Your task to perform on an android device: Go to wifi settings Image 0: 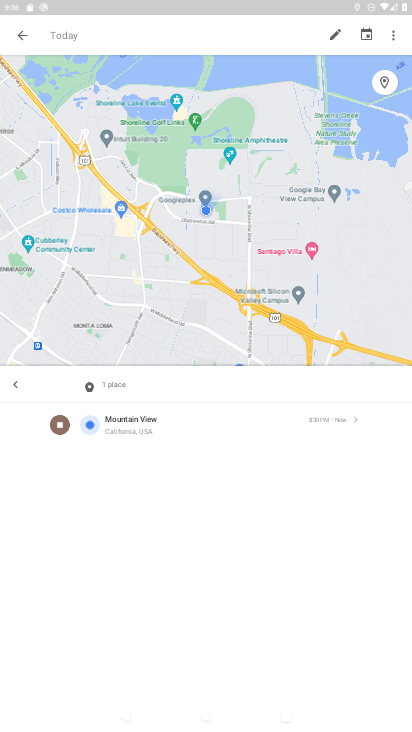
Step 0: press home button
Your task to perform on an android device: Go to wifi settings Image 1: 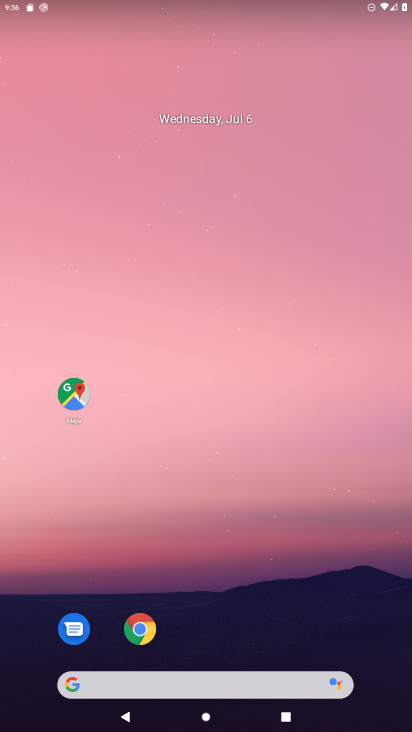
Step 1: drag from (281, 662) to (290, 46)
Your task to perform on an android device: Go to wifi settings Image 2: 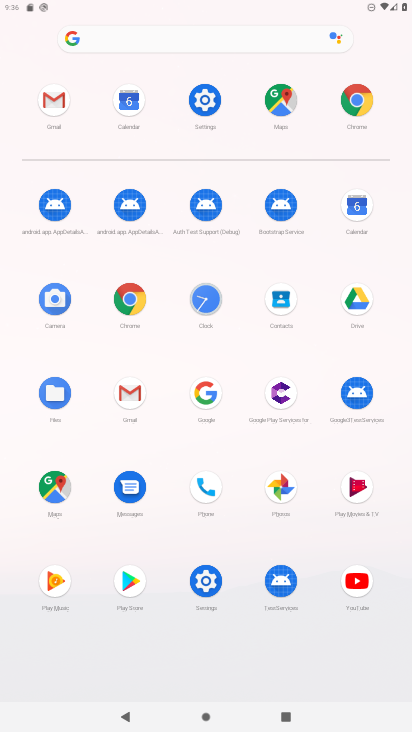
Step 2: click (198, 104)
Your task to perform on an android device: Go to wifi settings Image 3: 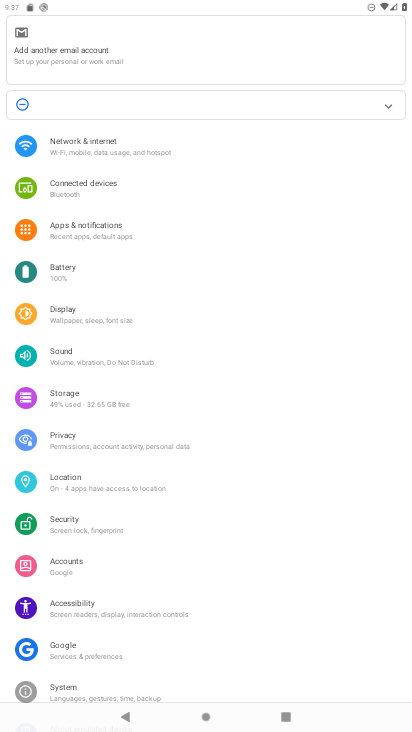
Step 3: click (90, 146)
Your task to perform on an android device: Go to wifi settings Image 4: 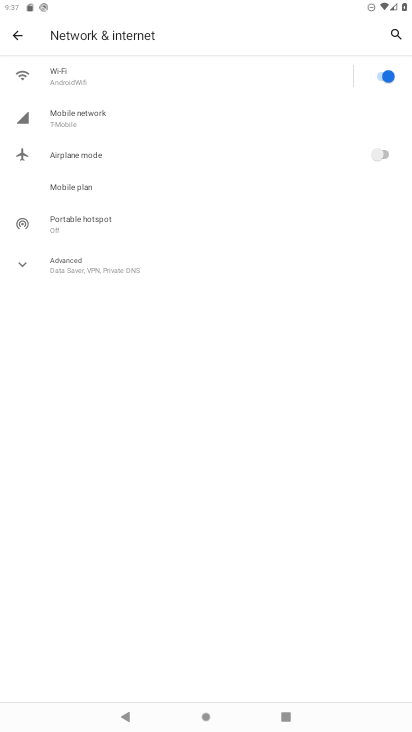
Step 4: click (136, 65)
Your task to perform on an android device: Go to wifi settings Image 5: 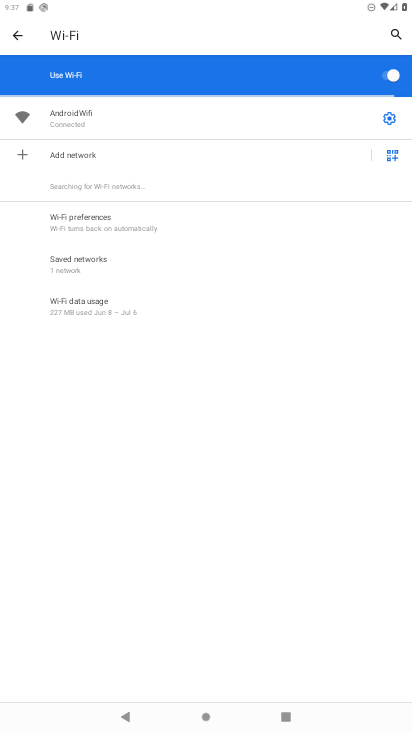
Step 5: task complete